Your task to perform on an android device: turn off priority inbox in the gmail app Image 0: 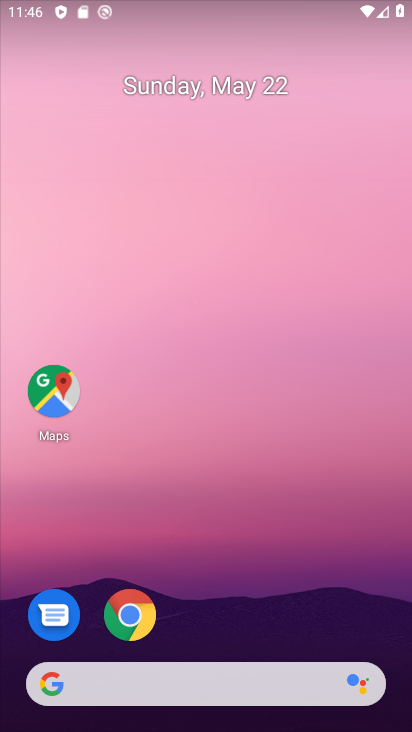
Step 0: drag from (253, 583) to (246, 106)
Your task to perform on an android device: turn off priority inbox in the gmail app Image 1: 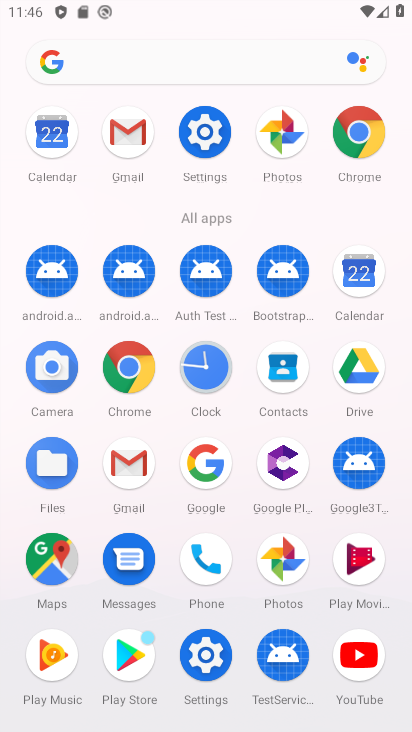
Step 1: click (129, 138)
Your task to perform on an android device: turn off priority inbox in the gmail app Image 2: 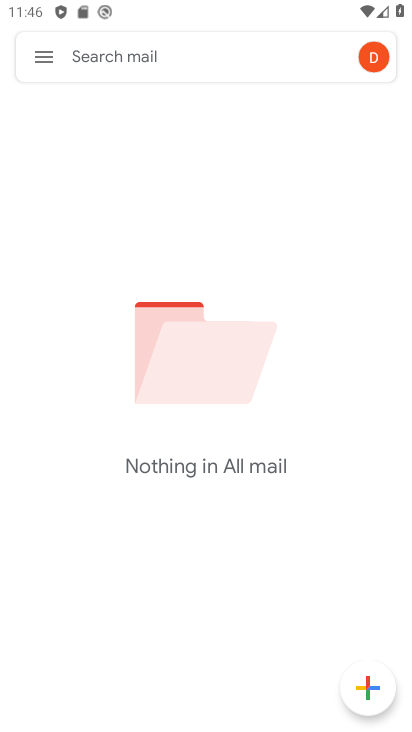
Step 2: click (52, 57)
Your task to perform on an android device: turn off priority inbox in the gmail app Image 3: 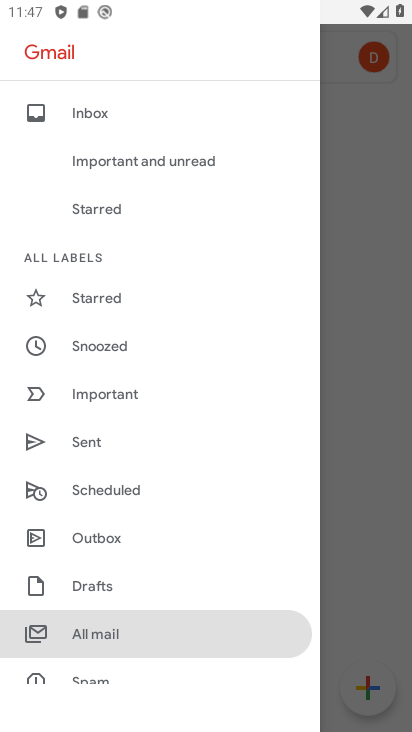
Step 3: drag from (101, 560) to (204, 66)
Your task to perform on an android device: turn off priority inbox in the gmail app Image 4: 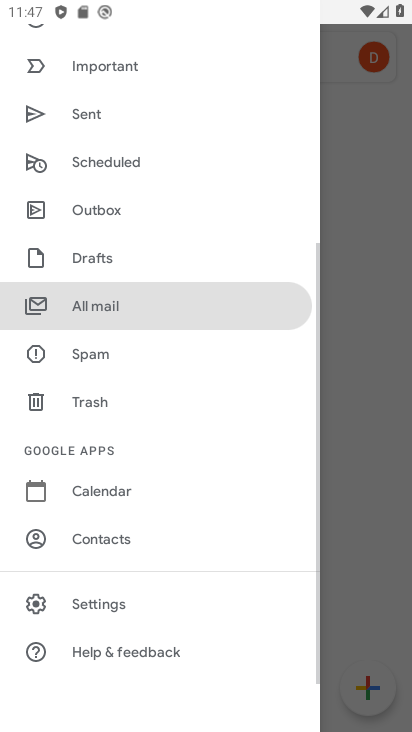
Step 4: click (112, 606)
Your task to perform on an android device: turn off priority inbox in the gmail app Image 5: 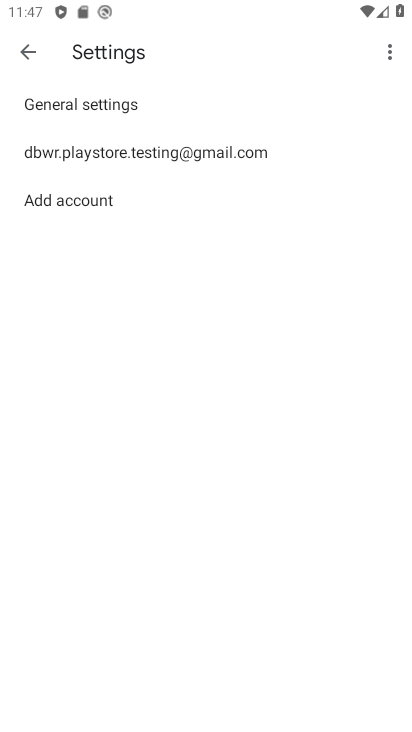
Step 5: click (139, 146)
Your task to perform on an android device: turn off priority inbox in the gmail app Image 6: 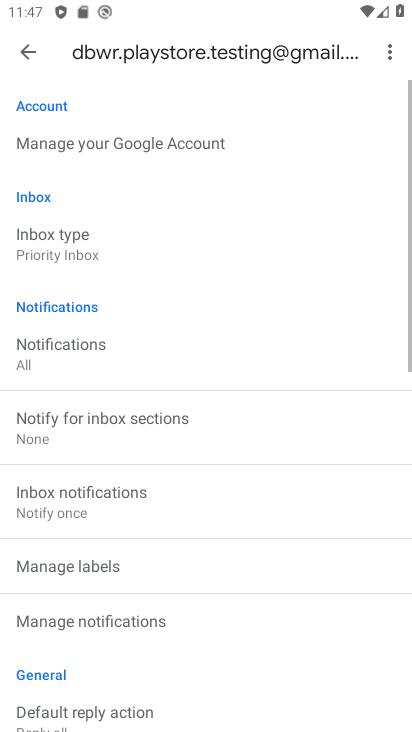
Step 6: click (103, 244)
Your task to perform on an android device: turn off priority inbox in the gmail app Image 7: 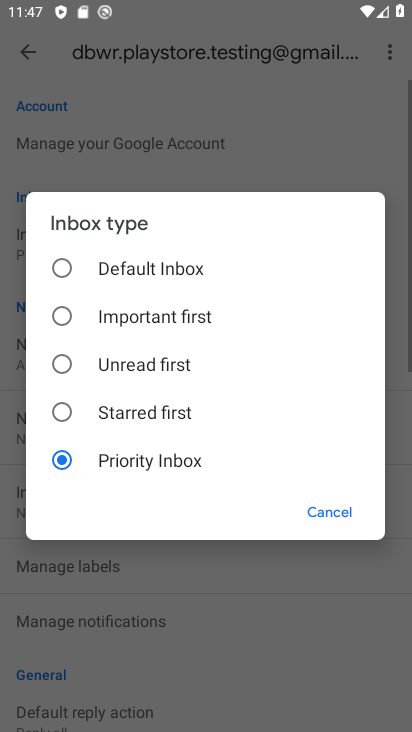
Step 7: click (75, 270)
Your task to perform on an android device: turn off priority inbox in the gmail app Image 8: 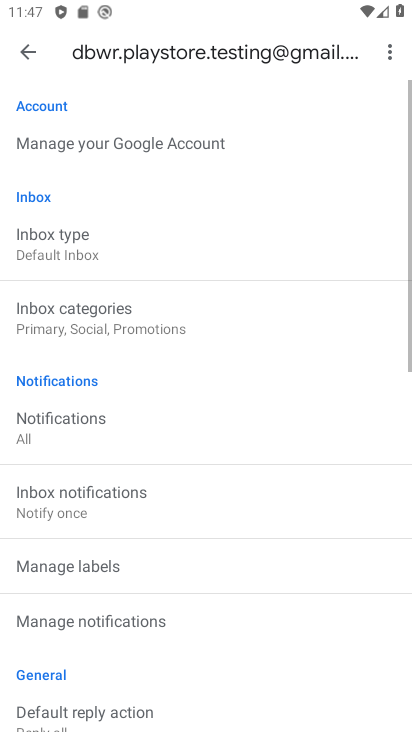
Step 8: task complete